Your task to perform on an android device: check the backup settings in the google photos Image 0: 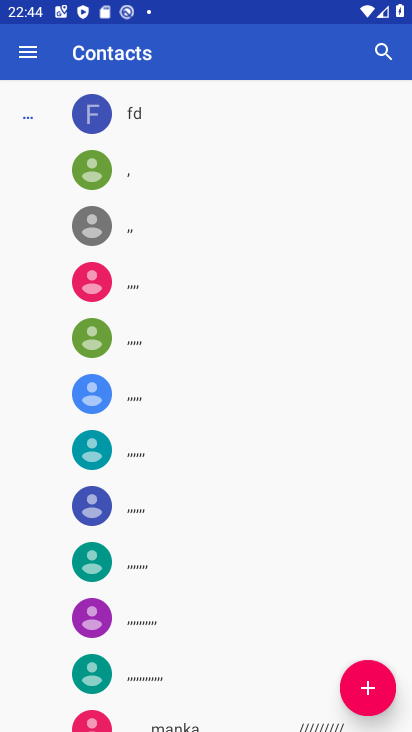
Step 0: press home button
Your task to perform on an android device: check the backup settings in the google photos Image 1: 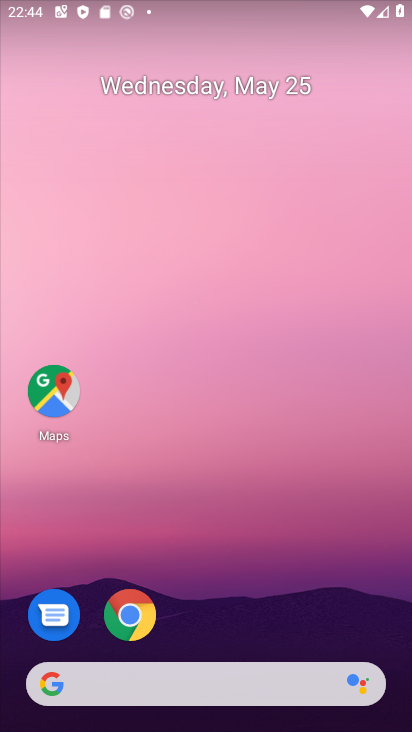
Step 1: drag from (311, 519) to (338, 154)
Your task to perform on an android device: check the backup settings in the google photos Image 2: 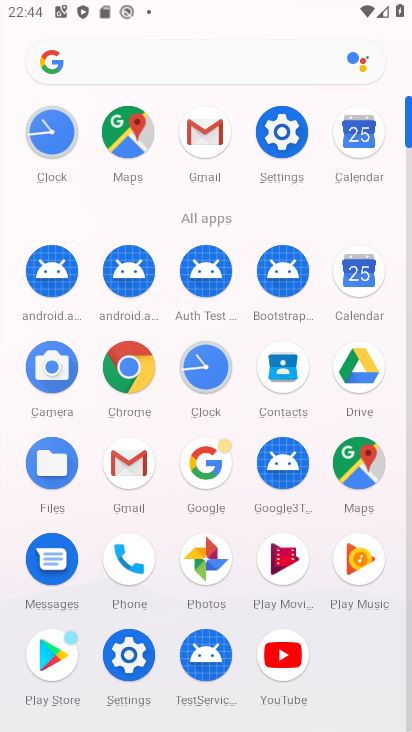
Step 2: click (197, 546)
Your task to perform on an android device: check the backup settings in the google photos Image 3: 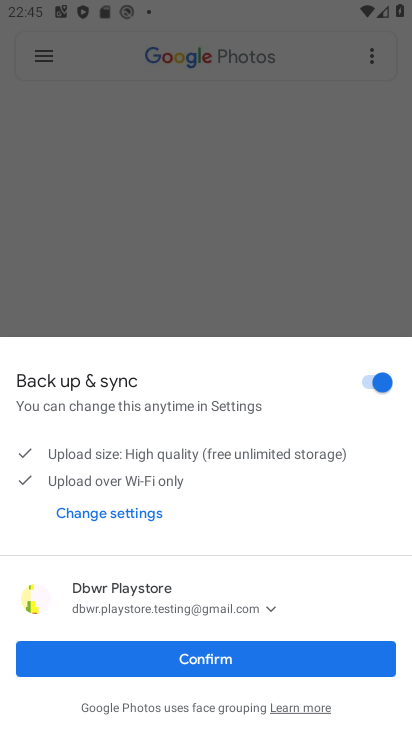
Step 3: click (36, 62)
Your task to perform on an android device: check the backup settings in the google photos Image 4: 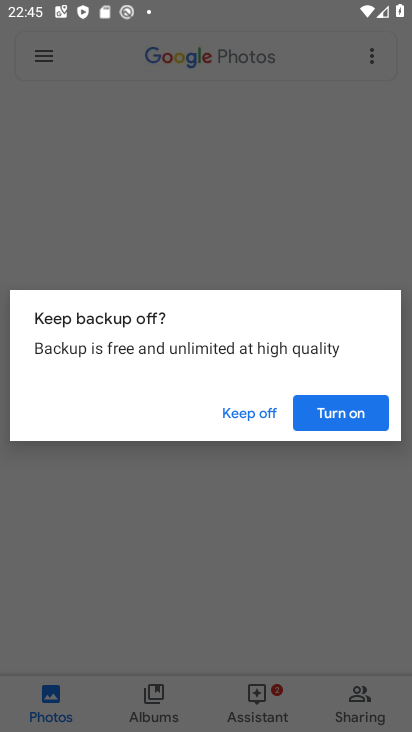
Step 4: drag from (46, 58) to (244, 390)
Your task to perform on an android device: check the backup settings in the google photos Image 5: 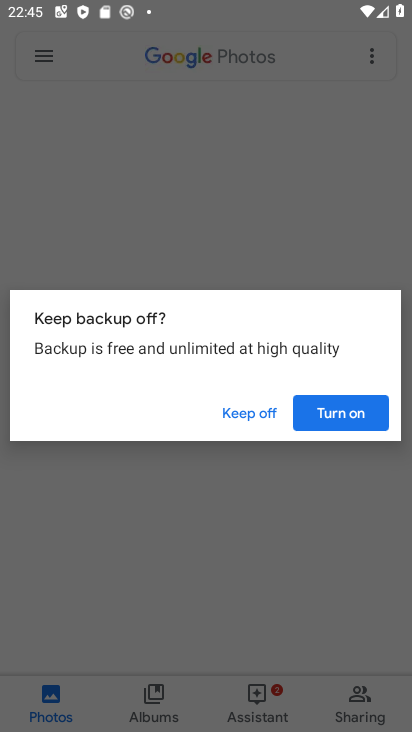
Step 5: click (327, 422)
Your task to perform on an android device: check the backup settings in the google photos Image 6: 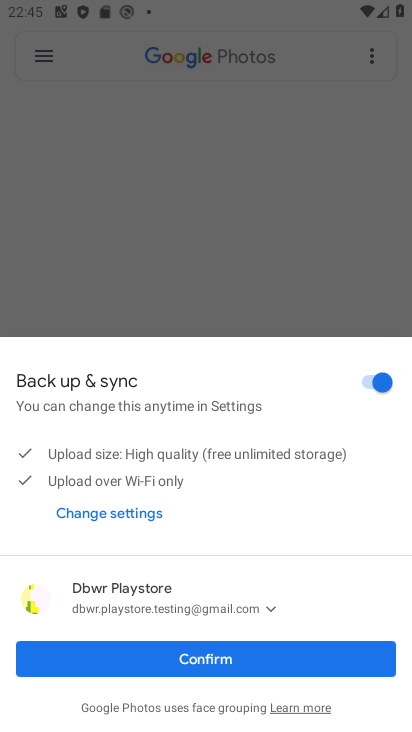
Step 6: click (143, 658)
Your task to perform on an android device: check the backup settings in the google photos Image 7: 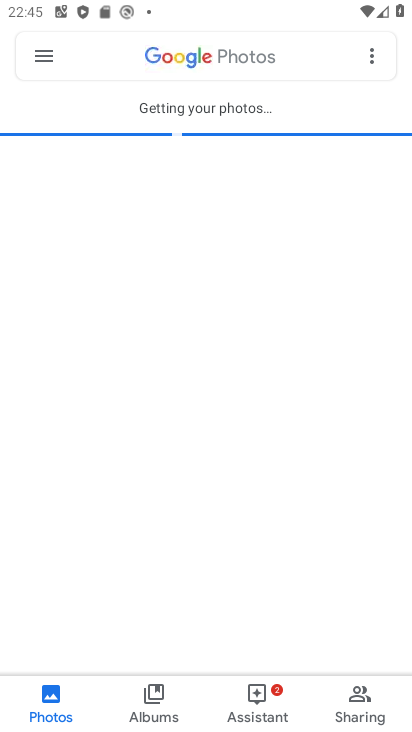
Step 7: click (37, 54)
Your task to perform on an android device: check the backup settings in the google photos Image 8: 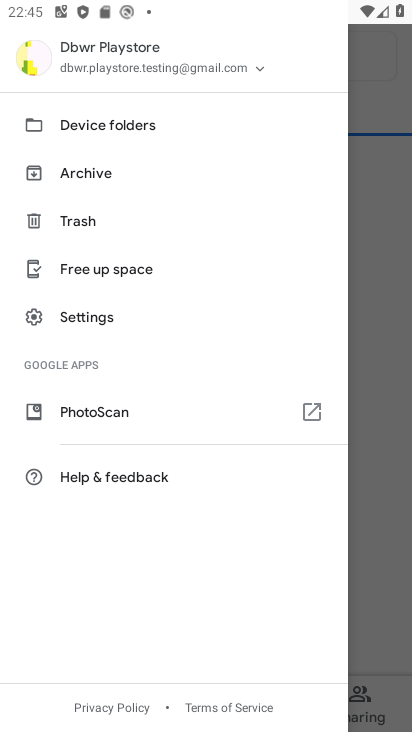
Step 8: click (108, 326)
Your task to perform on an android device: check the backup settings in the google photos Image 9: 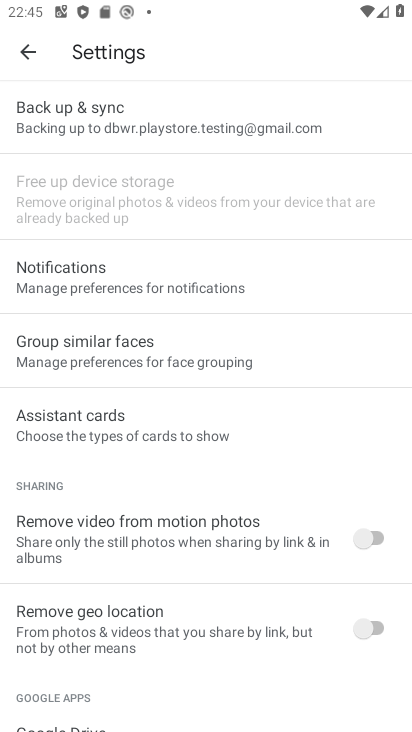
Step 9: drag from (203, 644) to (183, 688)
Your task to perform on an android device: check the backup settings in the google photos Image 10: 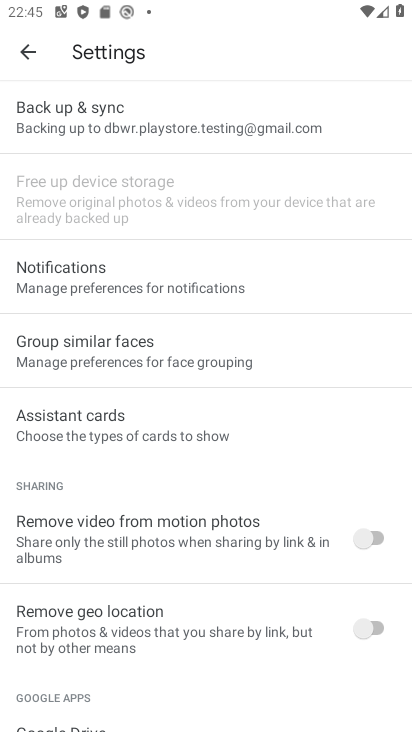
Step 10: click (150, 125)
Your task to perform on an android device: check the backup settings in the google photos Image 11: 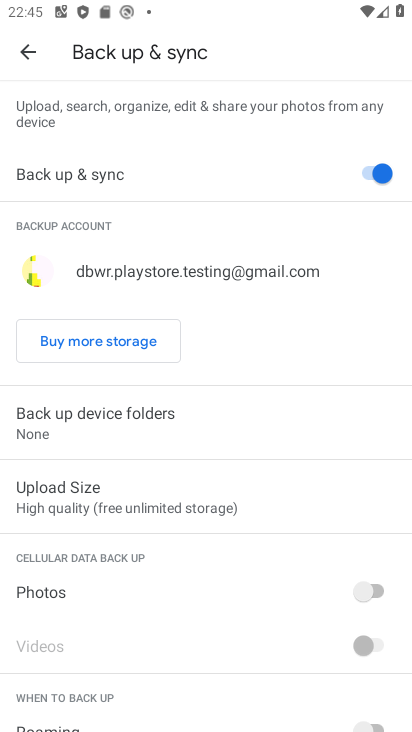
Step 11: task complete